Your task to perform on an android device: change the clock display to analog Image 0: 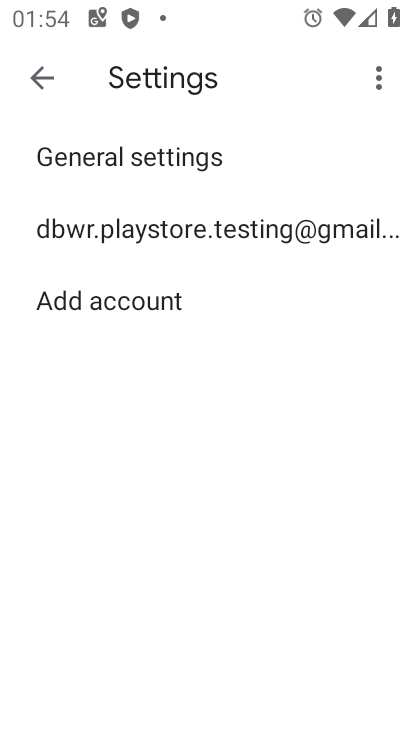
Step 0: press home button
Your task to perform on an android device: change the clock display to analog Image 1: 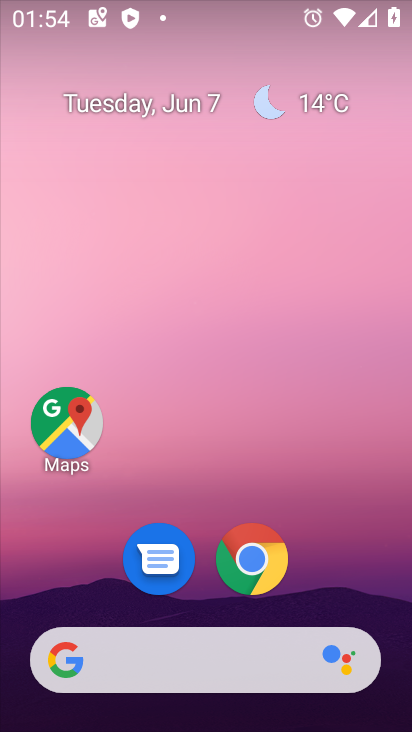
Step 1: drag from (356, 560) to (240, 74)
Your task to perform on an android device: change the clock display to analog Image 2: 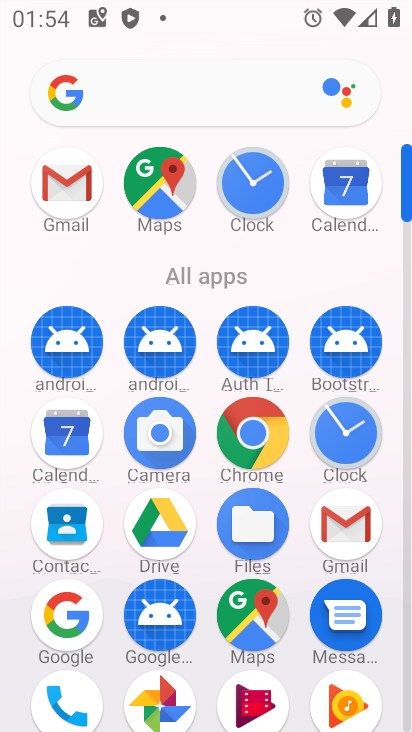
Step 2: click (254, 186)
Your task to perform on an android device: change the clock display to analog Image 3: 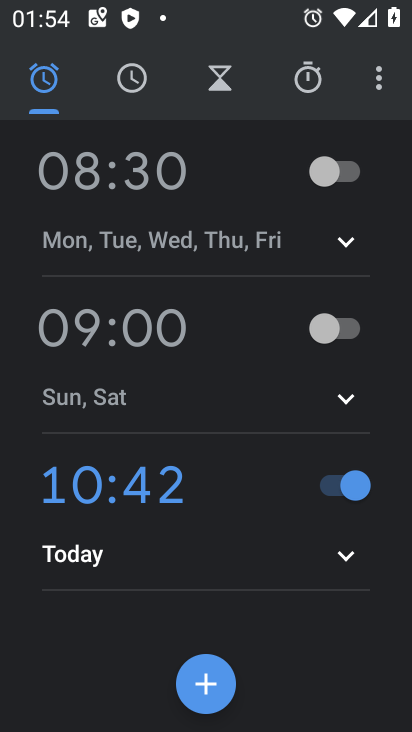
Step 3: click (380, 83)
Your task to perform on an android device: change the clock display to analog Image 4: 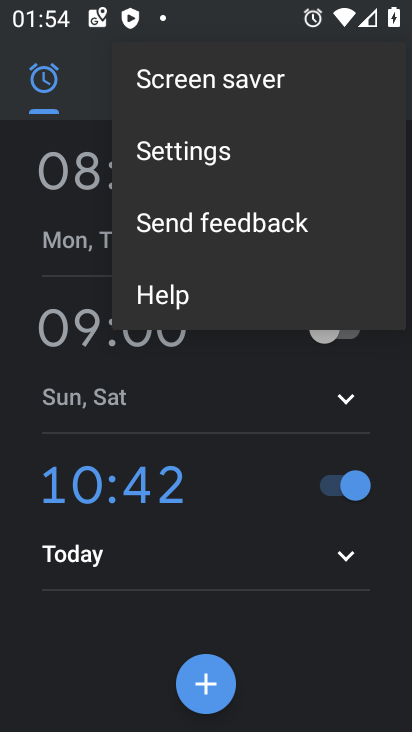
Step 4: click (230, 146)
Your task to perform on an android device: change the clock display to analog Image 5: 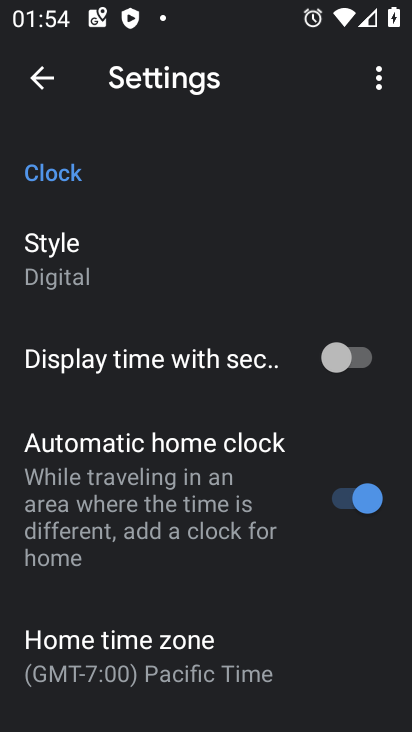
Step 5: click (131, 259)
Your task to perform on an android device: change the clock display to analog Image 6: 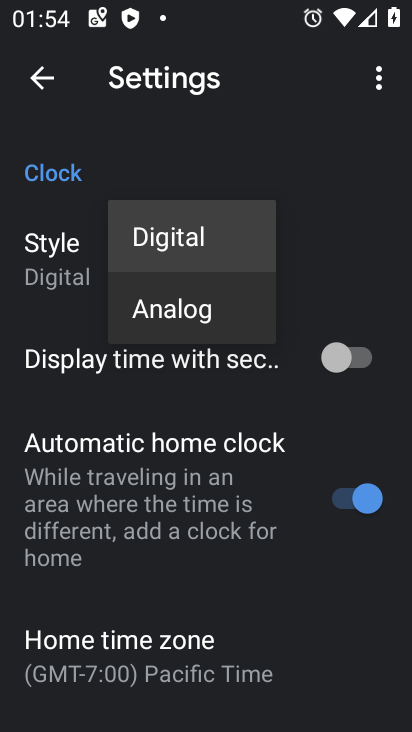
Step 6: click (175, 310)
Your task to perform on an android device: change the clock display to analog Image 7: 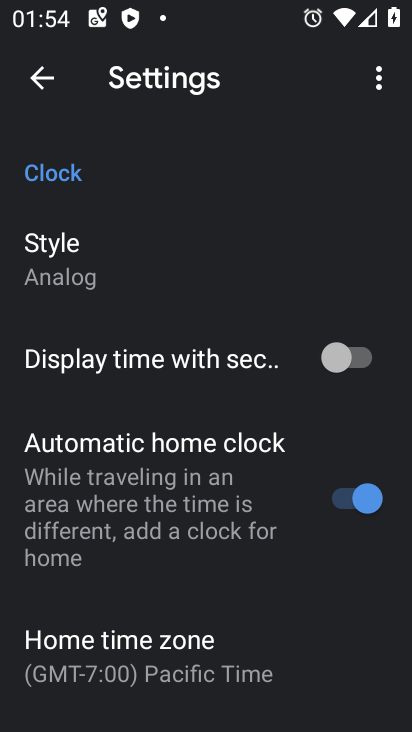
Step 7: task complete